Your task to perform on an android device: Go to calendar. Show me events next week Image 0: 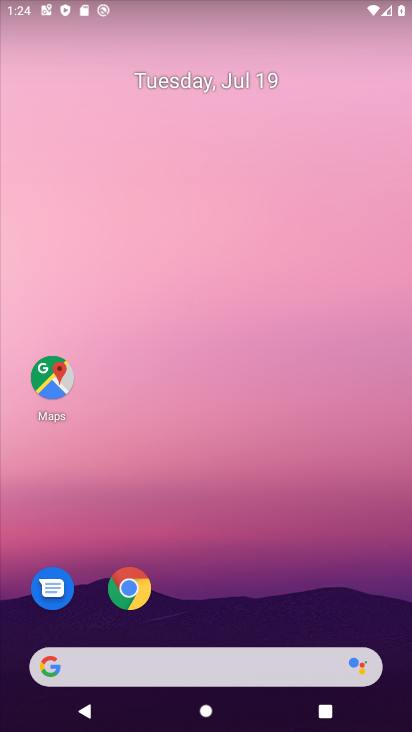
Step 0: drag from (18, 670) to (237, 41)
Your task to perform on an android device: Go to calendar. Show me events next week Image 1: 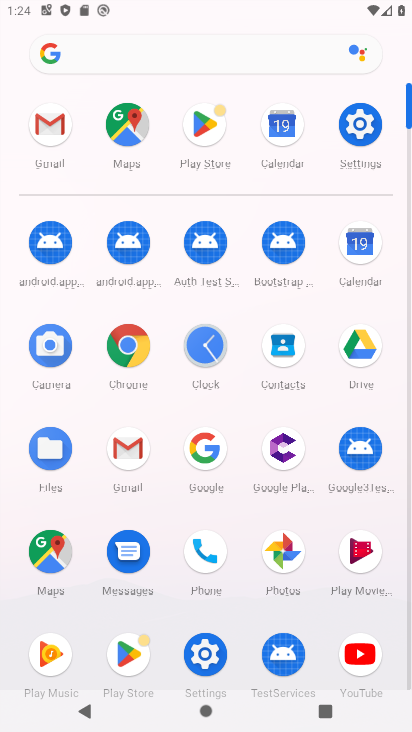
Step 1: click (361, 249)
Your task to perform on an android device: Go to calendar. Show me events next week Image 2: 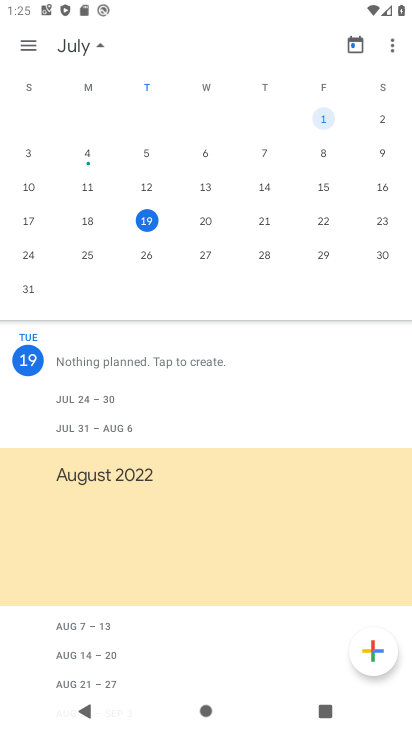
Step 2: task complete